Your task to perform on an android device: turn smart compose on in the gmail app Image 0: 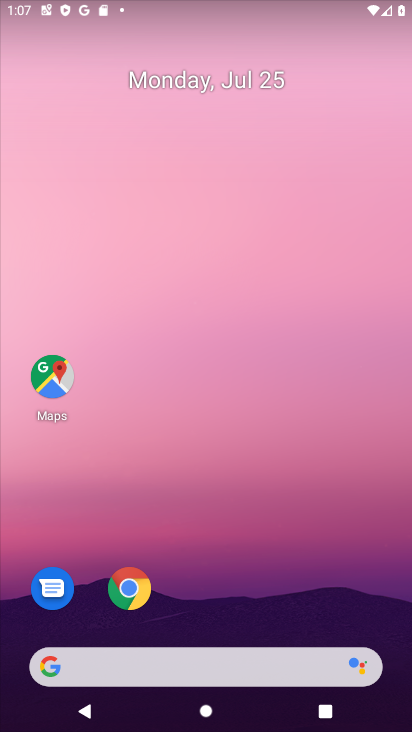
Step 0: drag from (153, 524) to (130, 106)
Your task to perform on an android device: turn smart compose on in the gmail app Image 1: 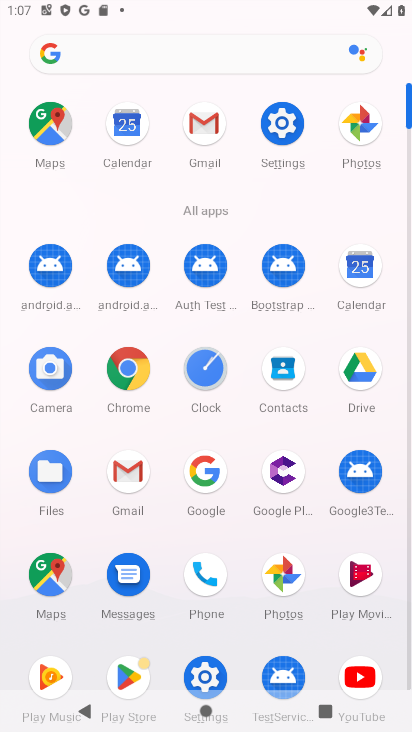
Step 1: click (205, 140)
Your task to perform on an android device: turn smart compose on in the gmail app Image 2: 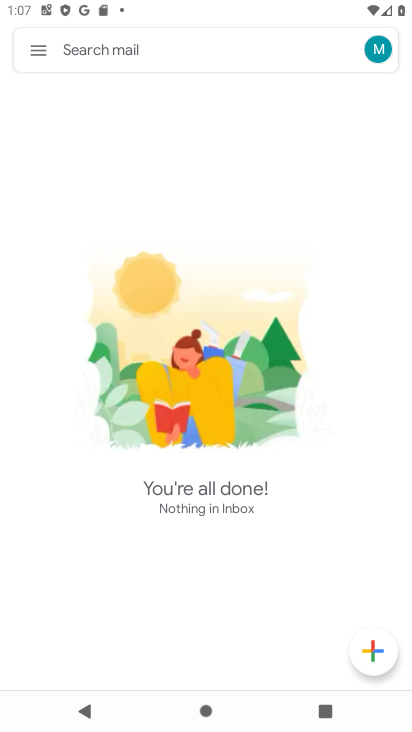
Step 2: click (37, 44)
Your task to perform on an android device: turn smart compose on in the gmail app Image 3: 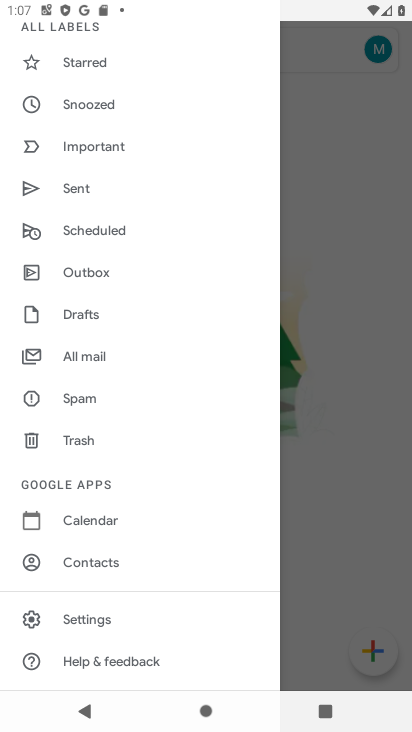
Step 3: click (86, 618)
Your task to perform on an android device: turn smart compose on in the gmail app Image 4: 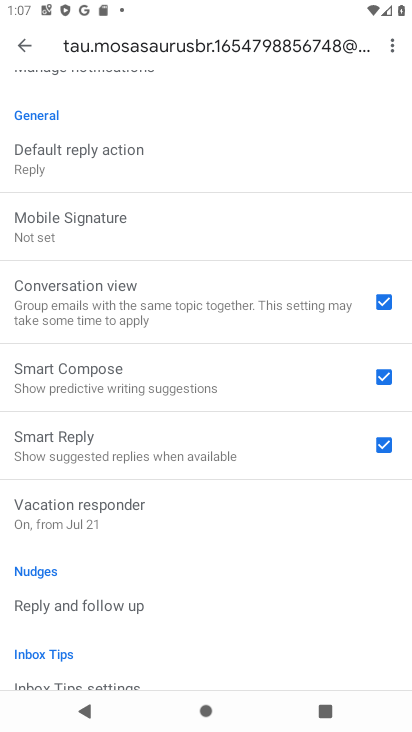
Step 4: task complete